Your task to perform on an android device: see tabs open on other devices in the chrome app Image 0: 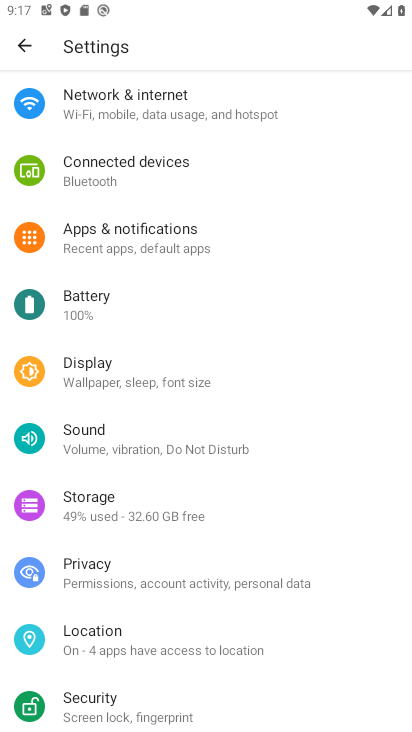
Step 0: press home button
Your task to perform on an android device: see tabs open on other devices in the chrome app Image 1: 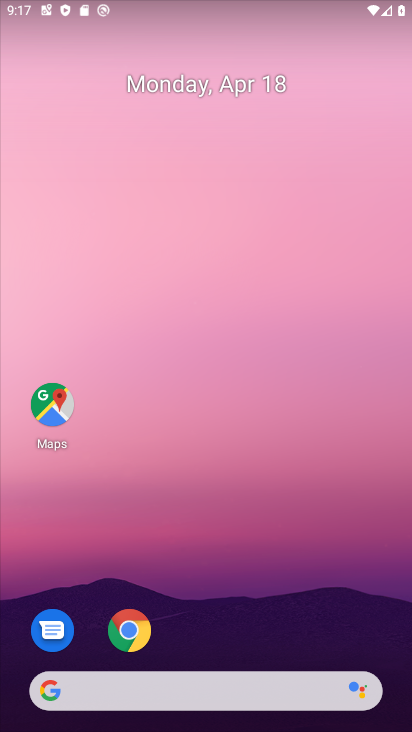
Step 1: click (132, 614)
Your task to perform on an android device: see tabs open on other devices in the chrome app Image 2: 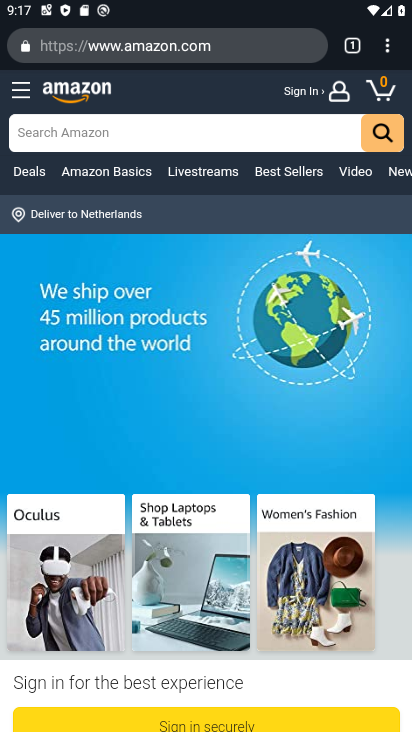
Step 2: click (386, 46)
Your task to perform on an android device: see tabs open on other devices in the chrome app Image 3: 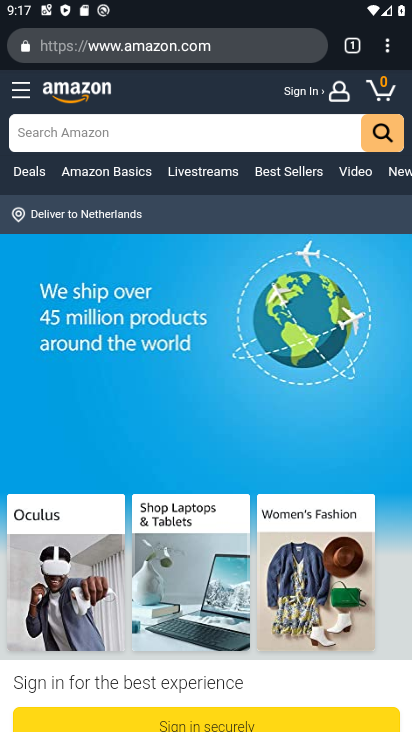
Step 3: click (386, 46)
Your task to perform on an android device: see tabs open on other devices in the chrome app Image 4: 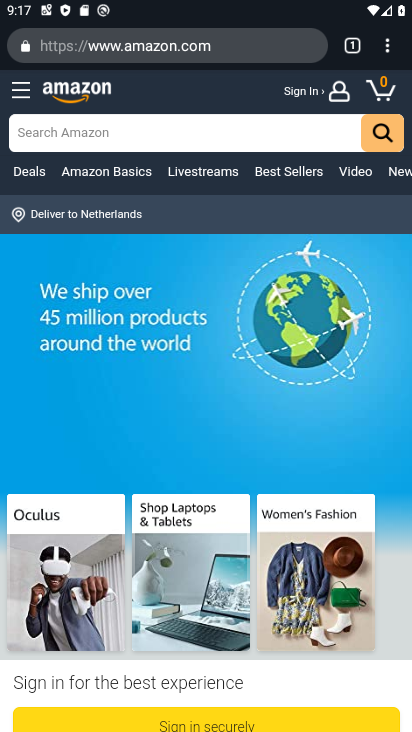
Step 4: click (386, 44)
Your task to perform on an android device: see tabs open on other devices in the chrome app Image 5: 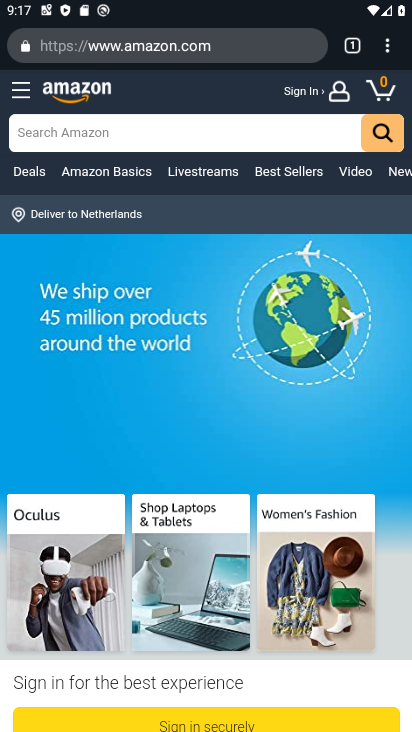
Step 5: task complete